Your task to perform on an android device: read, delete, or share a saved page in the chrome app Image 0: 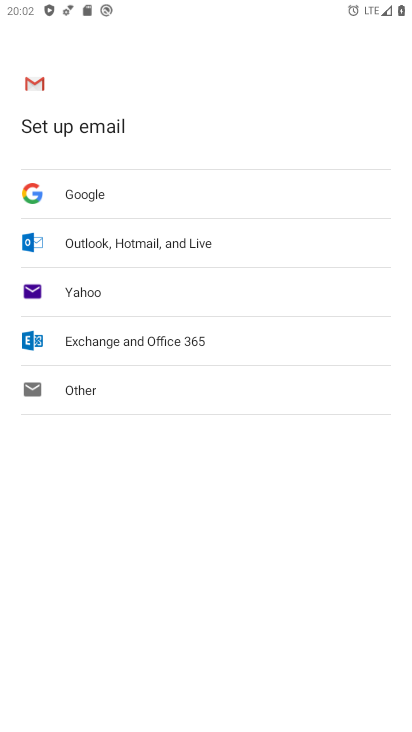
Step 0: press home button
Your task to perform on an android device: read, delete, or share a saved page in the chrome app Image 1: 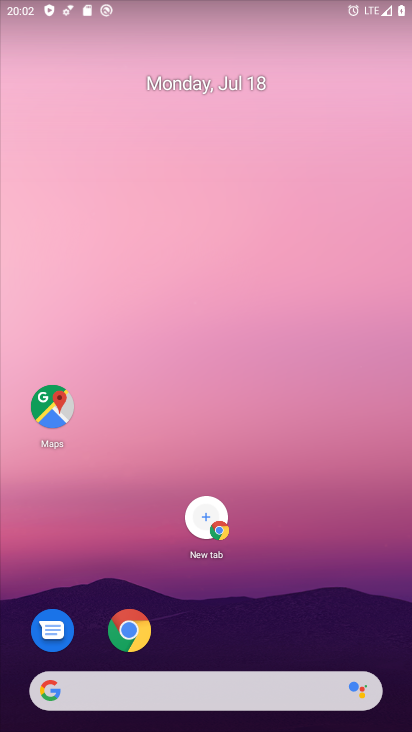
Step 1: click (134, 626)
Your task to perform on an android device: read, delete, or share a saved page in the chrome app Image 2: 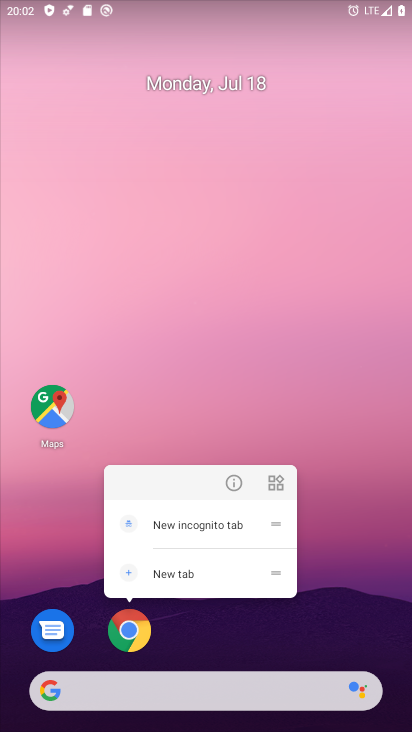
Step 2: click (126, 632)
Your task to perform on an android device: read, delete, or share a saved page in the chrome app Image 3: 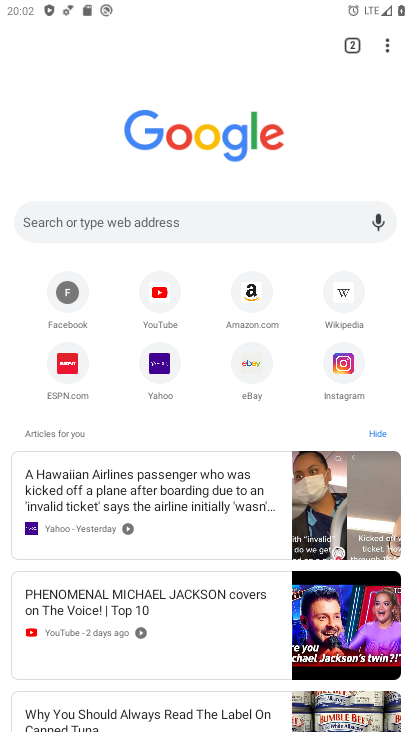
Step 3: click (390, 36)
Your task to perform on an android device: read, delete, or share a saved page in the chrome app Image 4: 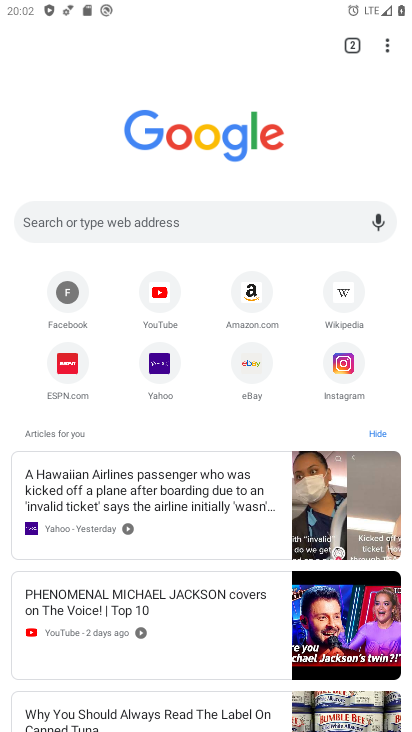
Step 4: click (396, 47)
Your task to perform on an android device: read, delete, or share a saved page in the chrome app Image 5: 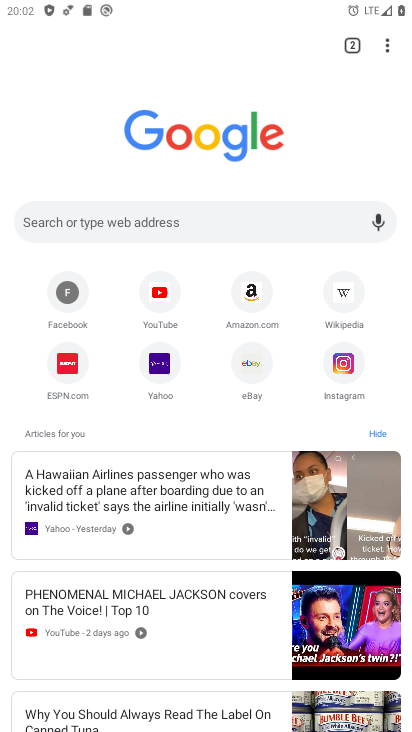
Step 5: click (381, 36)
Your task to perform on an android device: read, delete, or share a saved page in the chrome app Image 6: 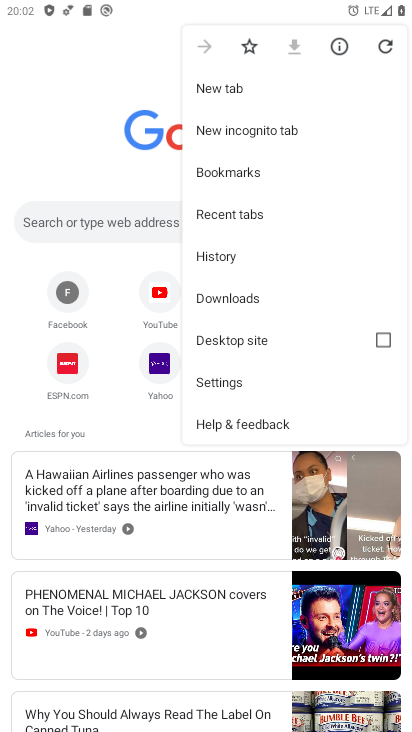
Step 6: click (226, 293)
Your task to perform on an android device: read, delete, or share a saved page in the chrome app Image 7: 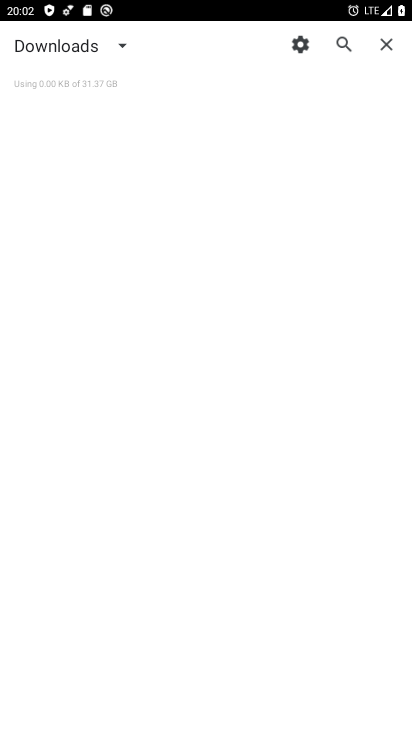
Step 7: click (126, 49)
Your task to perform on an android device: read, delete, or share a saved page in the chrome app Image 8: 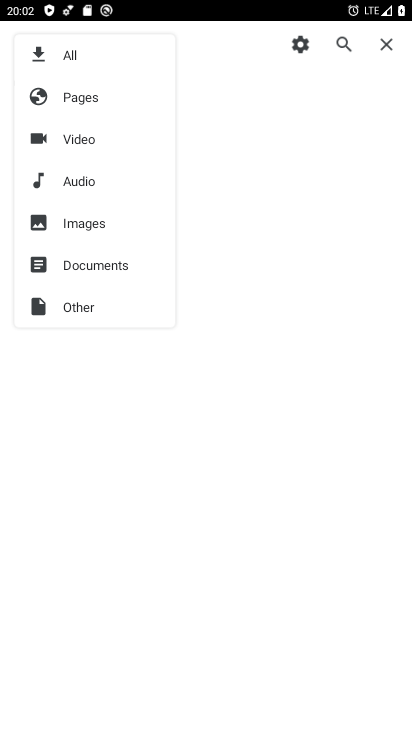
Step 8: click (90, 94)
Your task to perform on an android device: read, delete, or share a saved page in the chrome app Image 9: 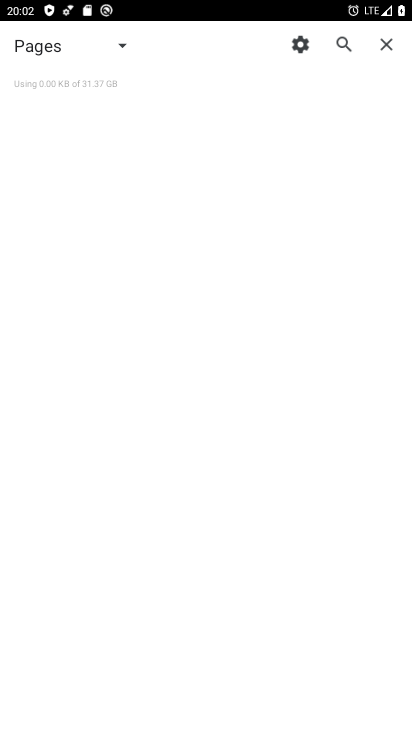
Step 9: task complete